Your task to perform on an android device: open the mobile data screen to see how much data has been used Image 0: 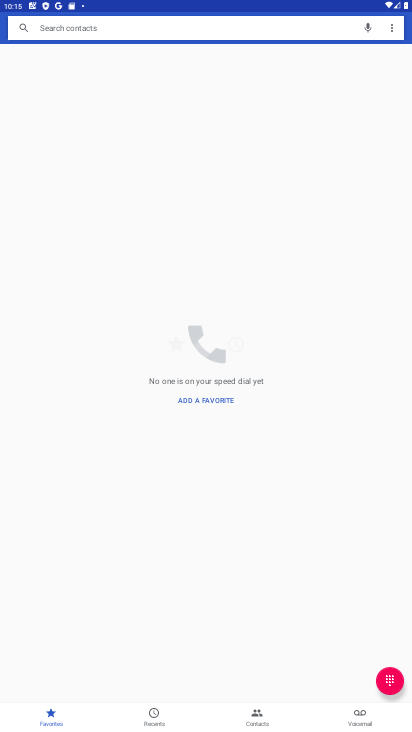
Step 0: press home button
Your task to perform on an android device: open the mobile data screen to see how much data has been used Image 1: 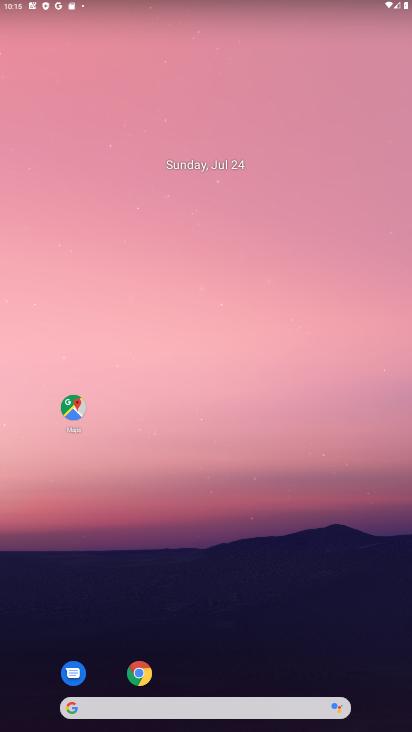
Step 1: drag from (70, 609) to (343, 63)
Your task to perform on an android device: open the mobile data screen to see how much data has been used Image 2: 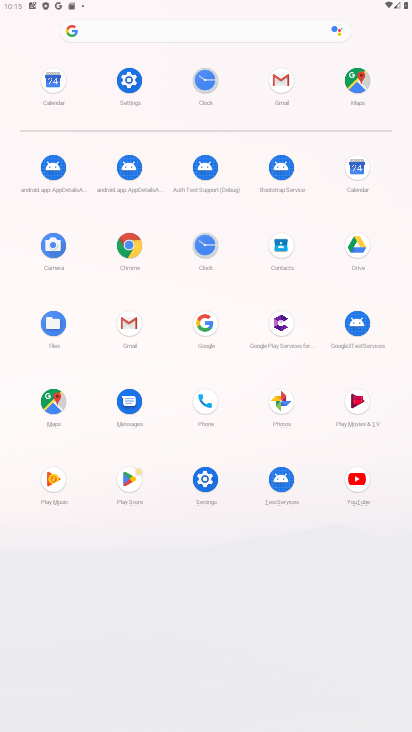
Step 2: click (217, 479)
Your task to perform on an android device: open the mobile data screen to see how much data has been used Image 3: 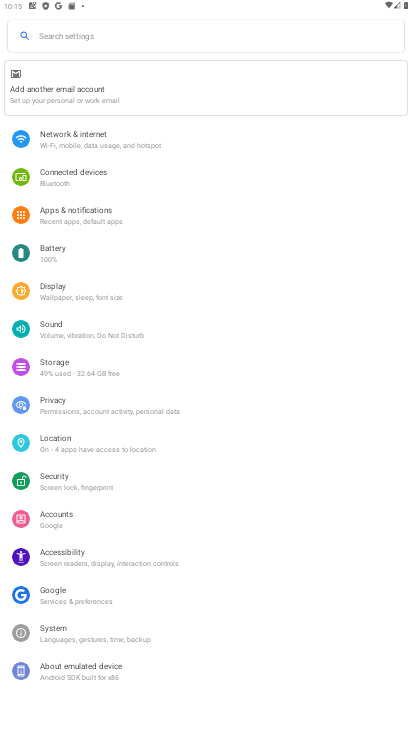
Step 3: click (119, 137)
Your task to perform on an android device: open the mobile data screen to see how much data has been used Image 4: 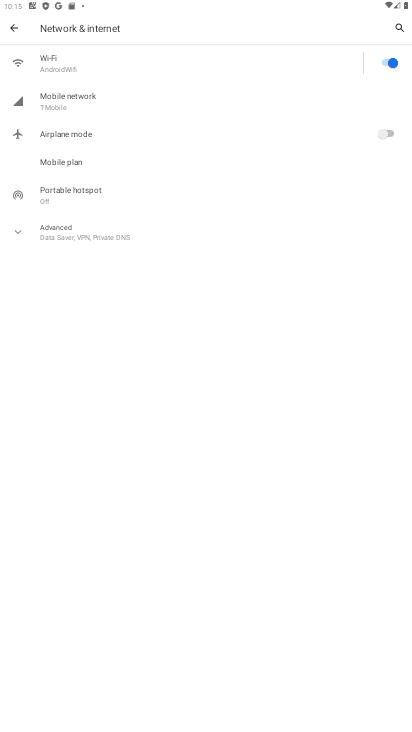
Step 4: click (74, 93)
Your task to perform on an android device: open the mobile data screen to see how much data has been used Image 5: 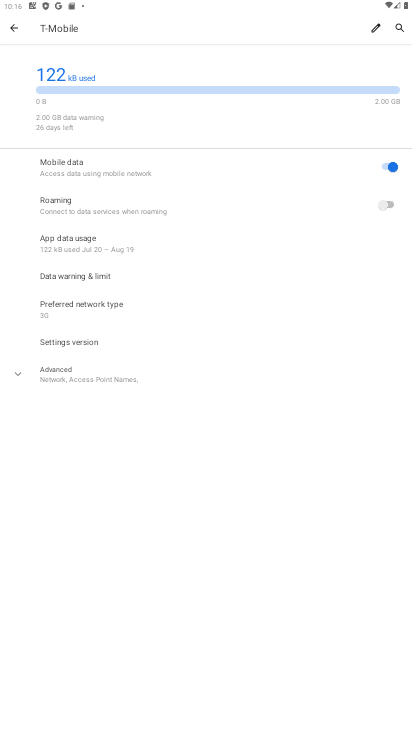
Step 5: task complete